Your task to perform on an android device: turn on bluetooth scan Image 0: 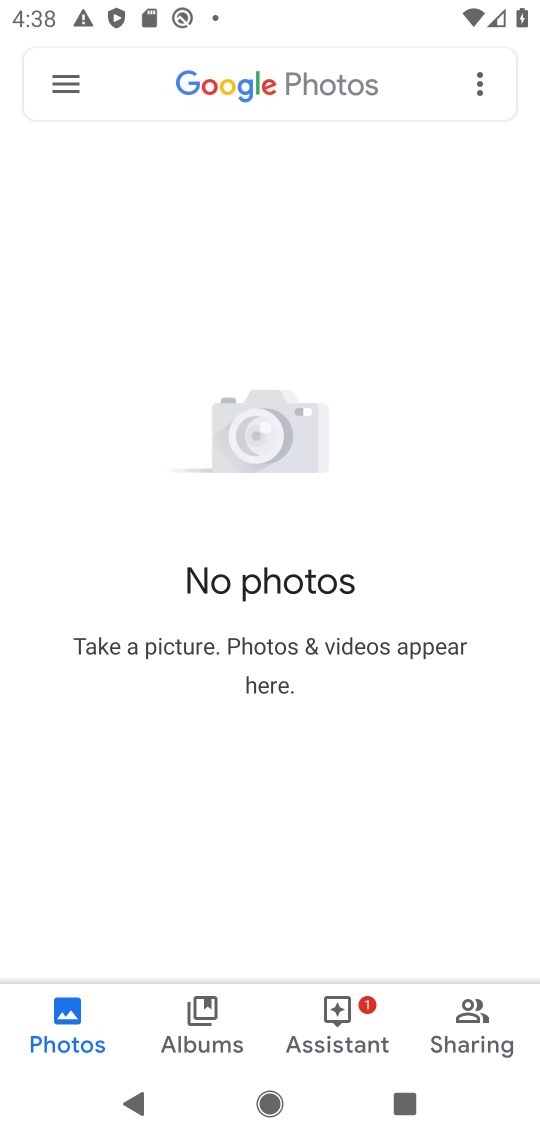
Step 0: press home button
Your task to perform on an android device: turn on bluetooth scan Image 1: 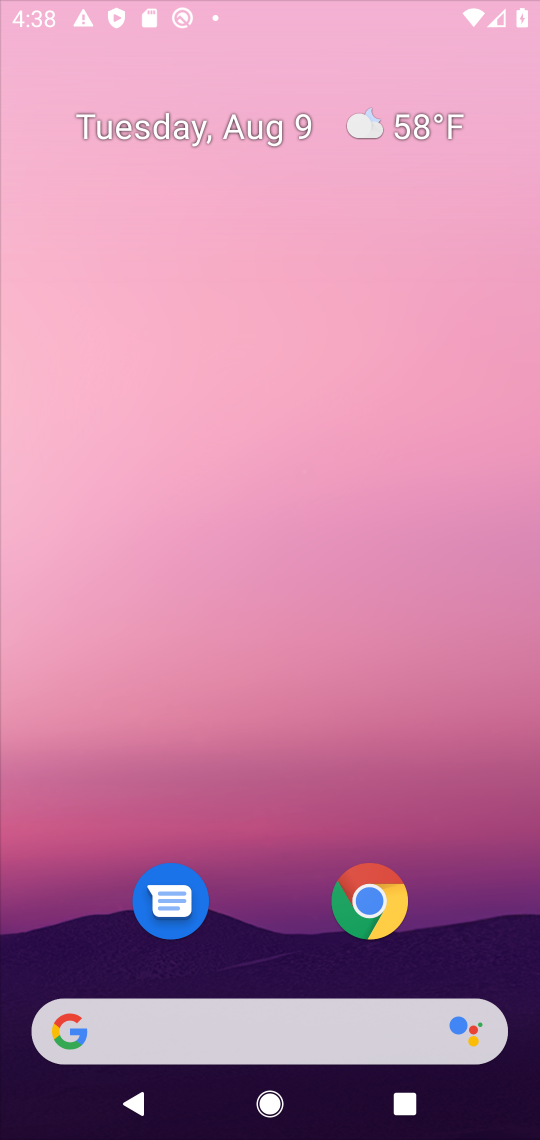
Step 1: drag from (279, 999) to (275, 204)
Your task to perform on an android device: turn on bluetooth scan Image 2: 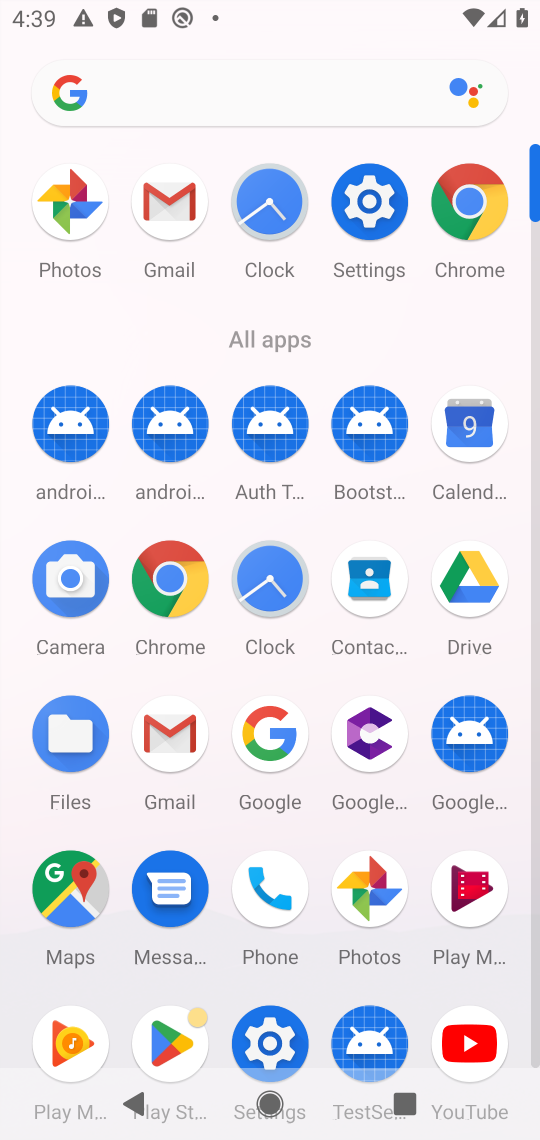
Step 2: click (248, 1052)
Your task to perform on an android device: turn on bluetooth scan Image 3: 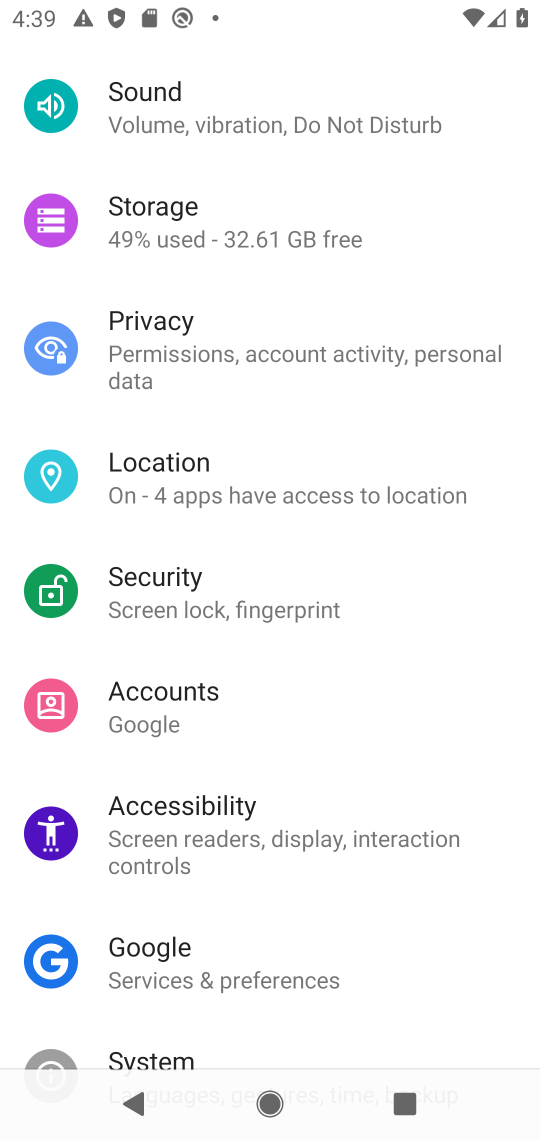
Step 3: click (424, 481)
Your task to perform on an android device: turn on bluetooth scan Image 4: 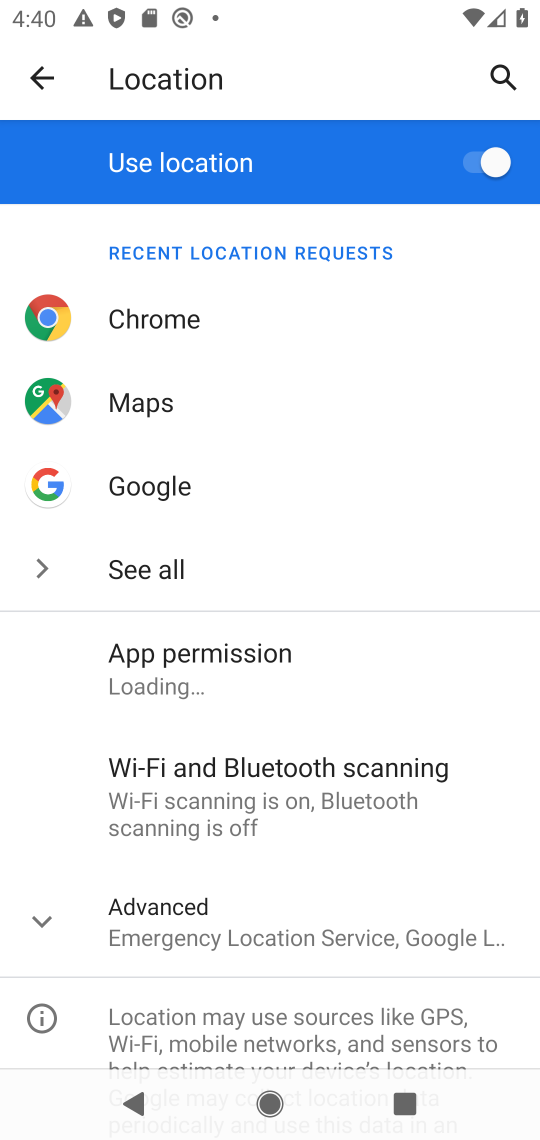
Step 4: click (322, 752)
Your task to perform on an android device: turn on bluetooth scan Image 5: 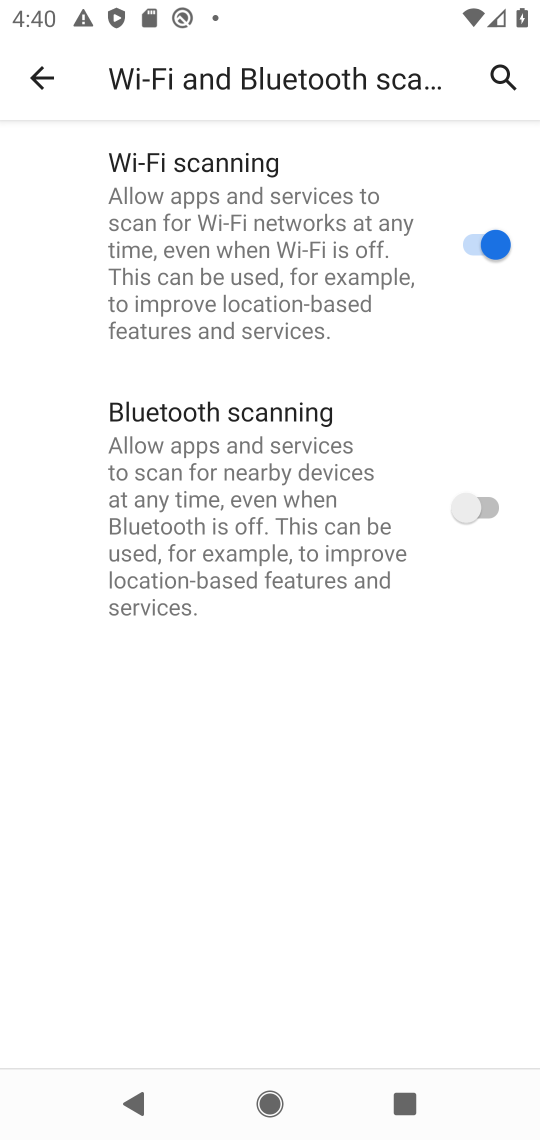
Step 5: click (344, 527)
Your task to perform on an android device: turn on bluetooth scan Image 6: 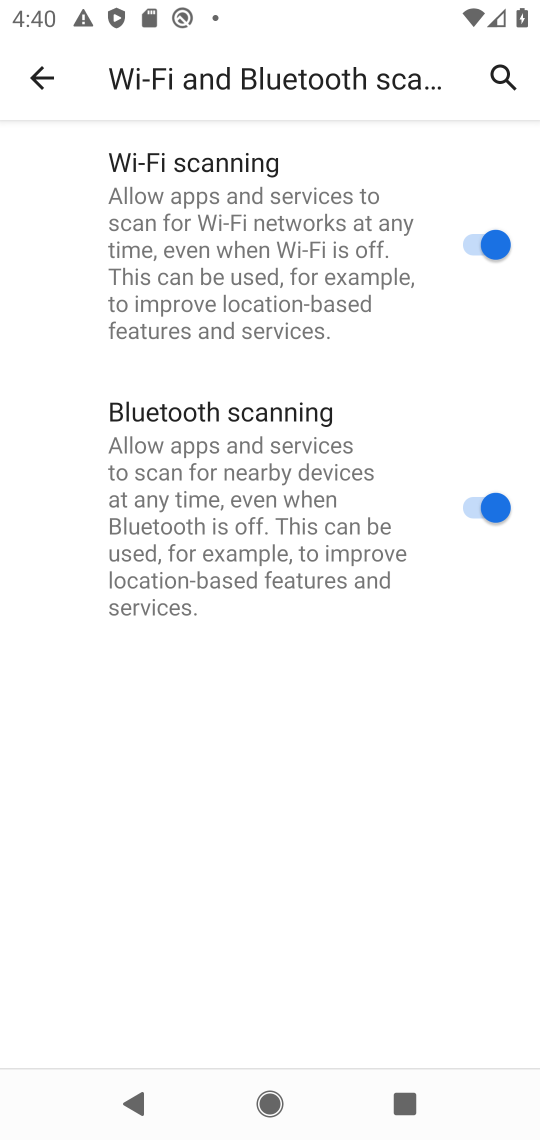
Step 6: task complete